Your task to perform on an android device: open app "Gmail" (install if not already installed) Image 0: 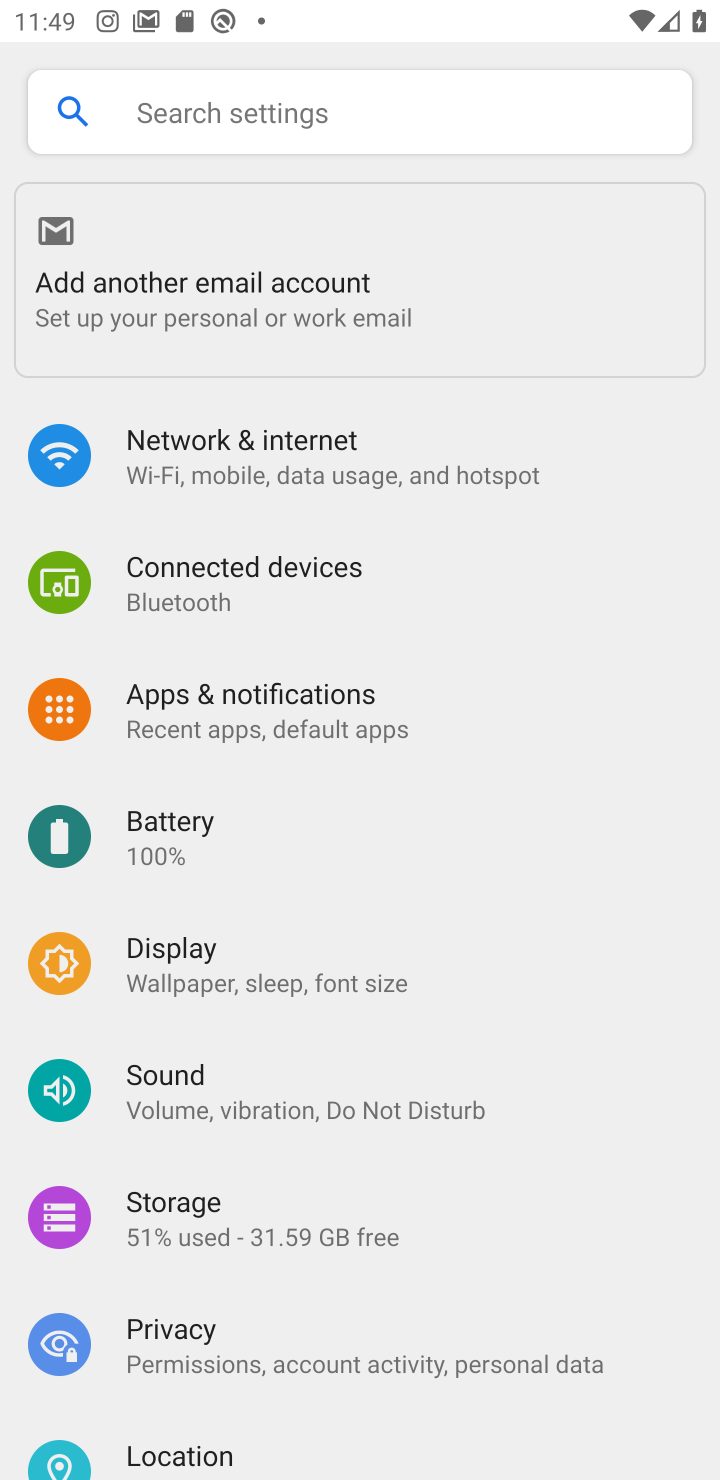
Step 0: press home button
Your task to perform on an android device: open app "Gmail" (install if not already installed) Image 1: 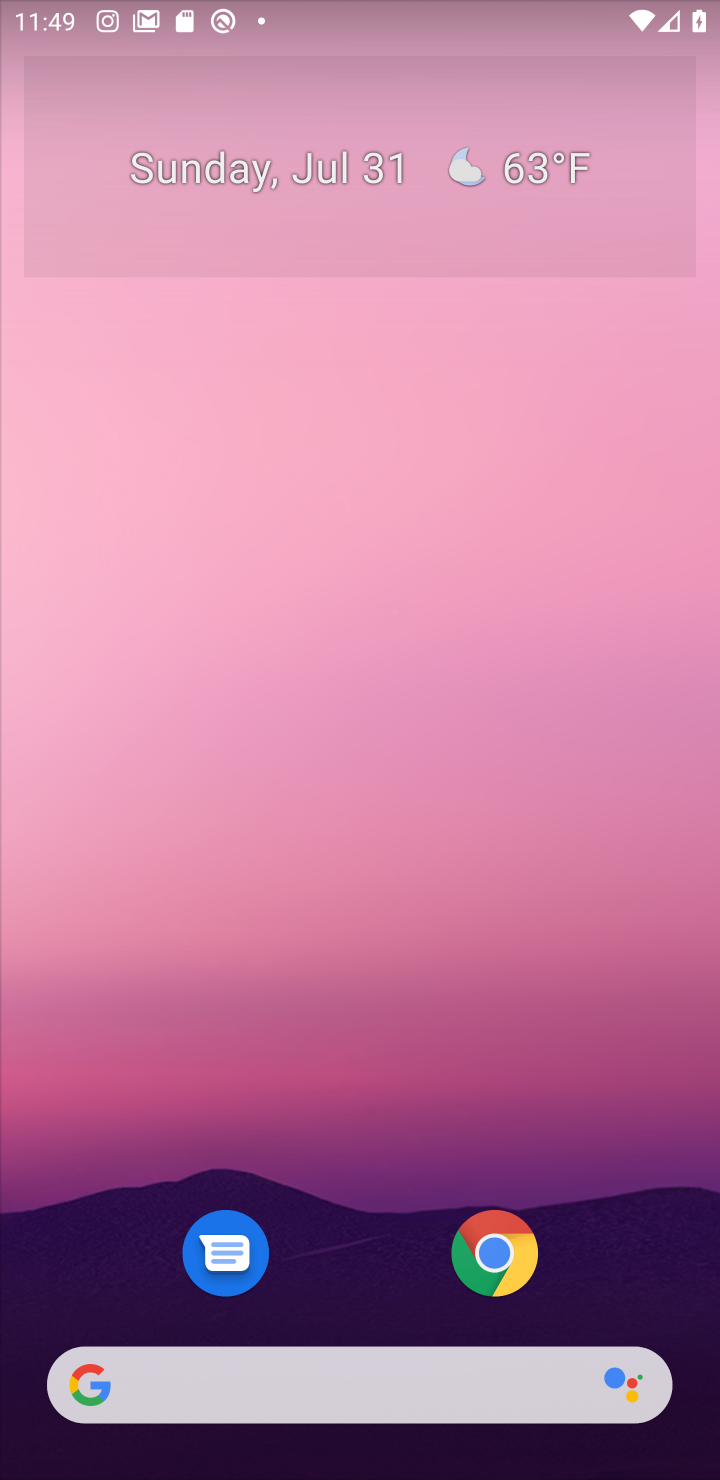
Step 1: drag from (603, 885) to (583, 102)
Your task to perform on an android device: open app "Gmail" (install if not already installed) Image 2: 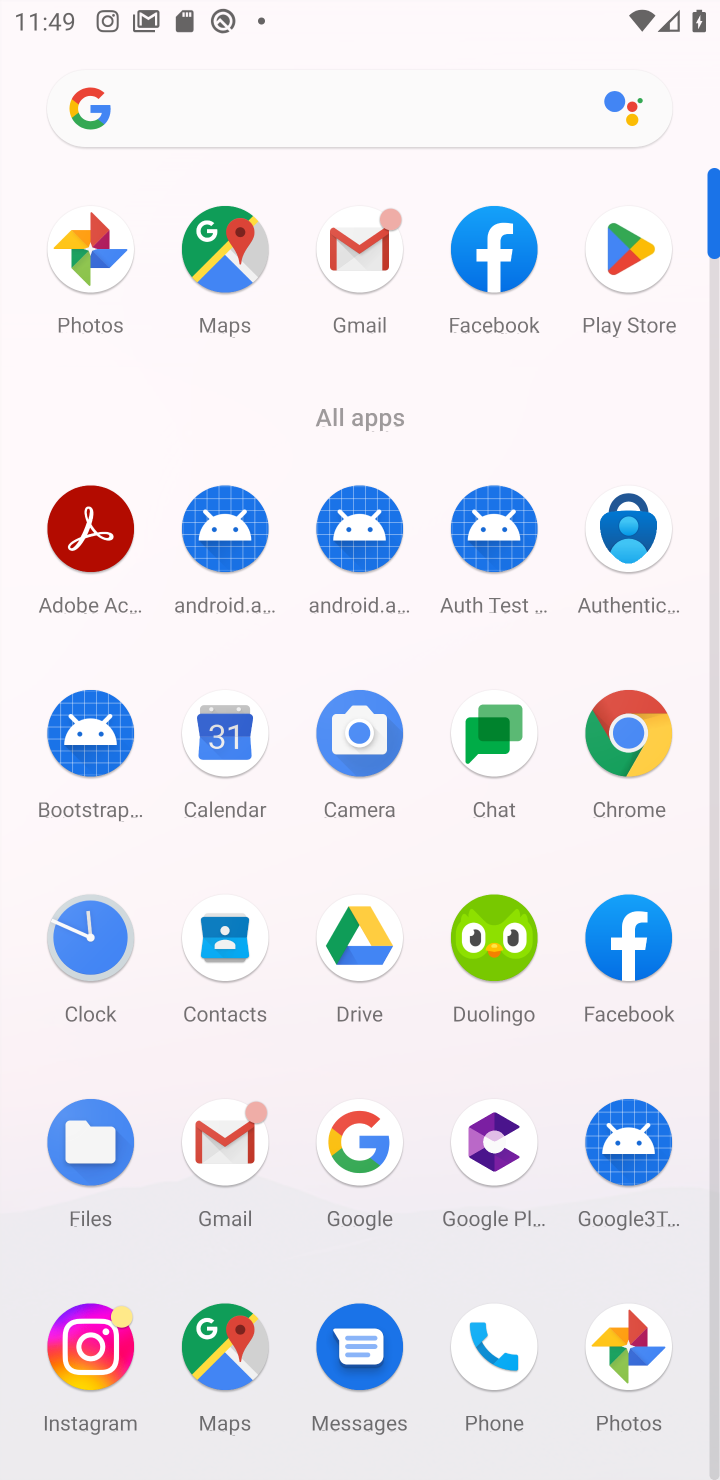
Step 2: click (632, 236)
Your task to perform on an android device: open app "Gmail" (install if not already installed) Image 3: 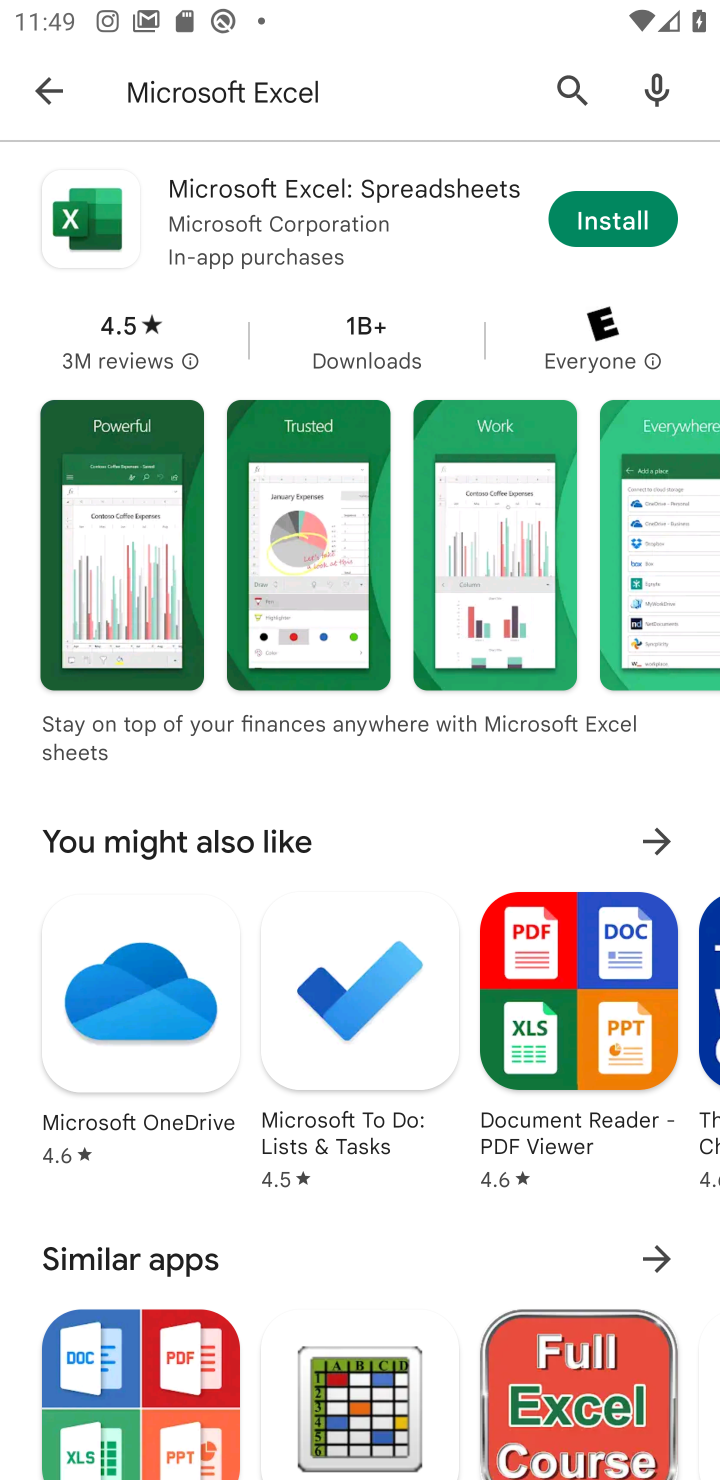
Step 3: click (301, 94)
Your task to perform on an android device: open app "Gmail" (install if not already installed) Image 4: 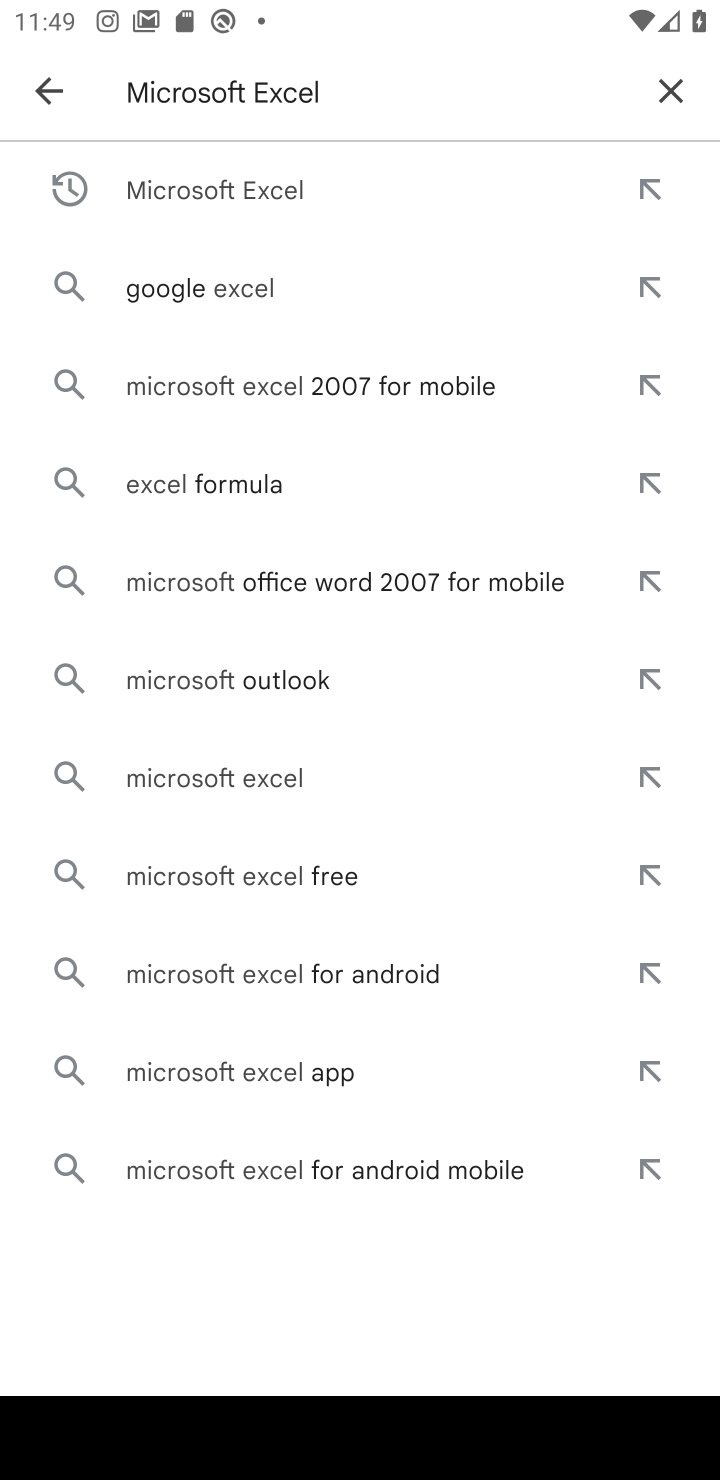
Step 4: click (680, 86)
Your task to perform on an android device: open app "Gmail" (install if not already installed) Image 5: 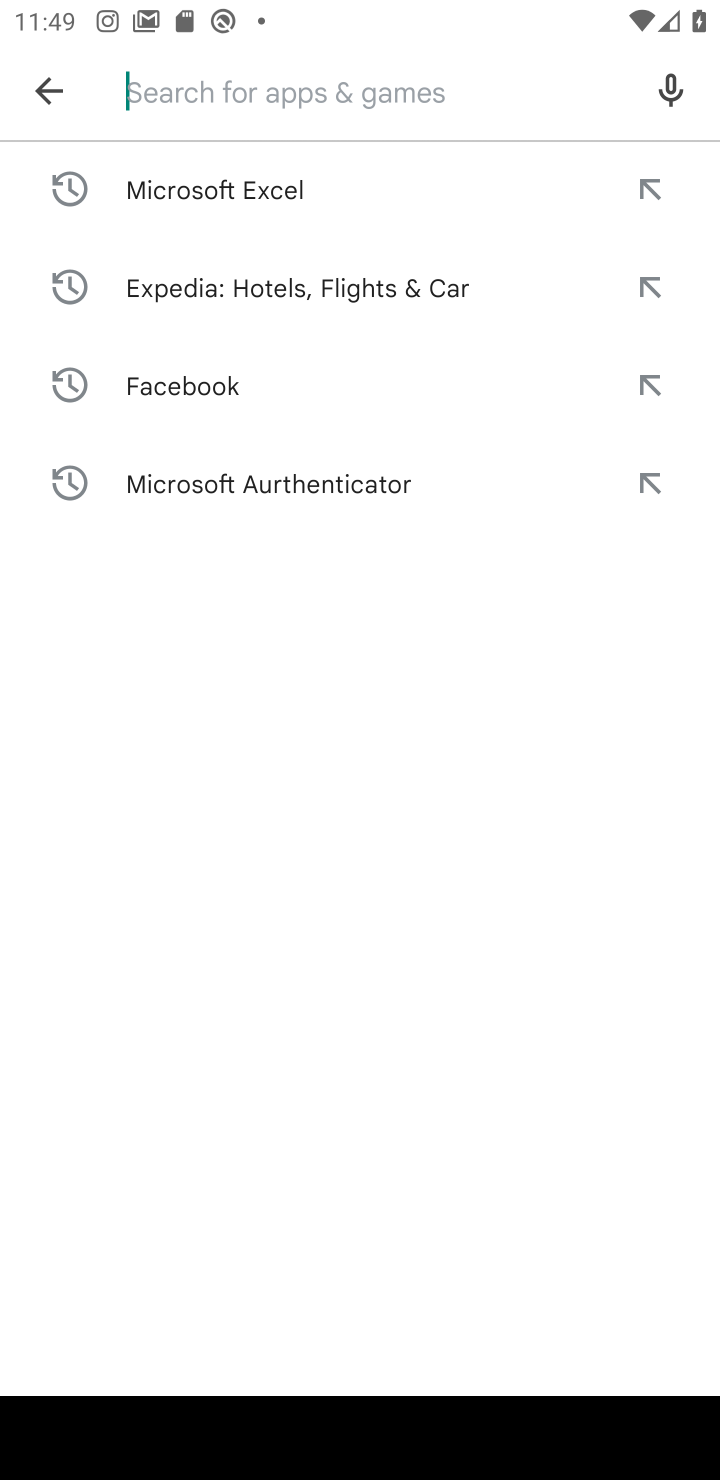
Step 5: type "Gmail"
Your task to perform on an android device: open app "Gmail" (install if not already installed) Image 6: 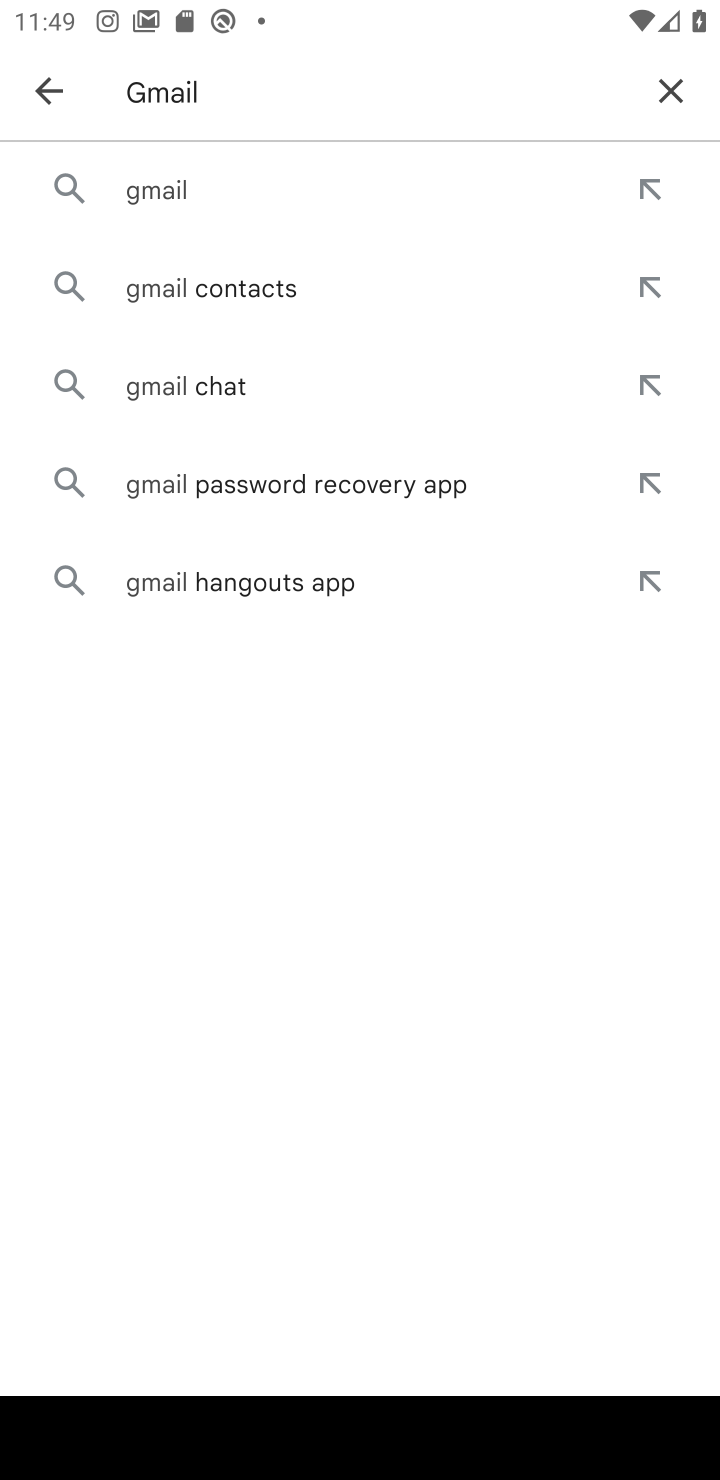
Step 6: click (231, 182)
Your task to perform on an android device: open app "Gmail" (install if not already installed) Image 7: 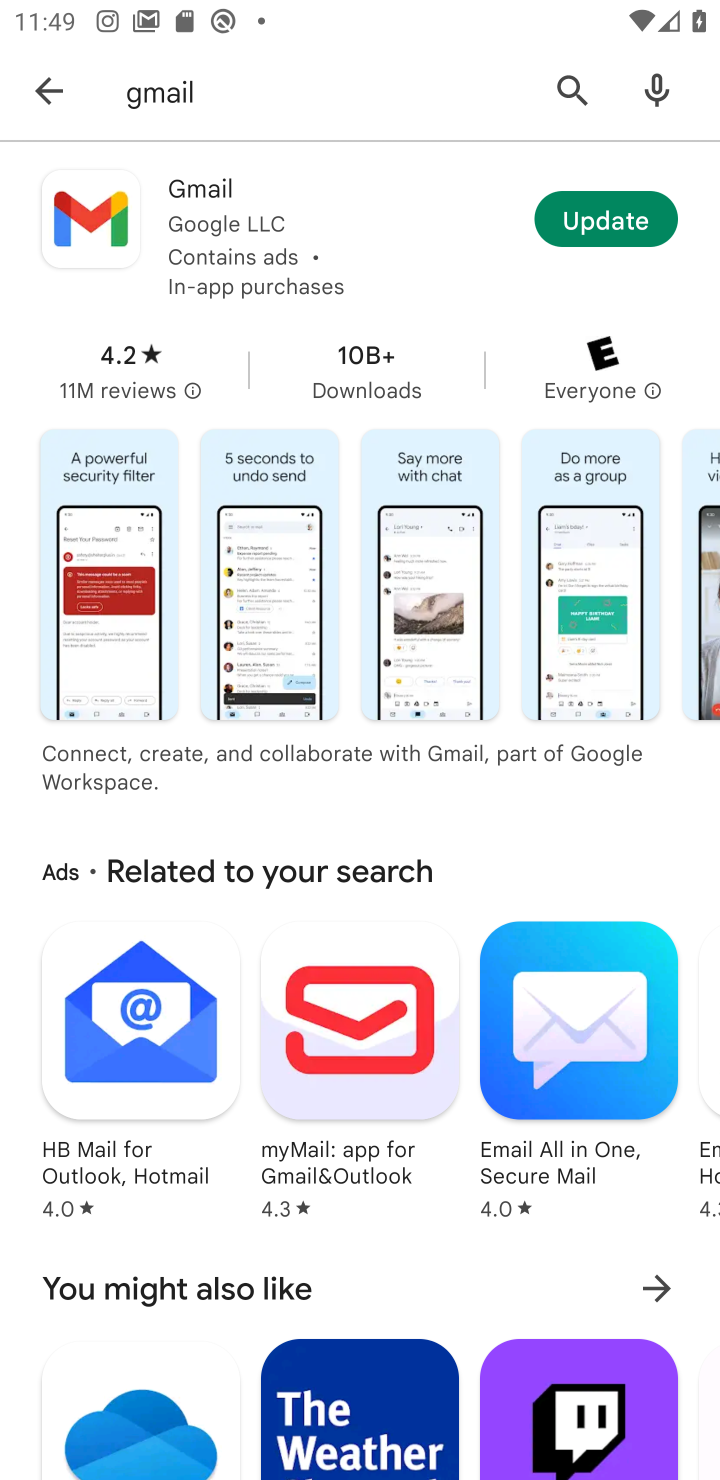
Step 7: click (295, 206)
Your task to perform on an android device: open app "Gmail" (install if not already installed) Image 8: 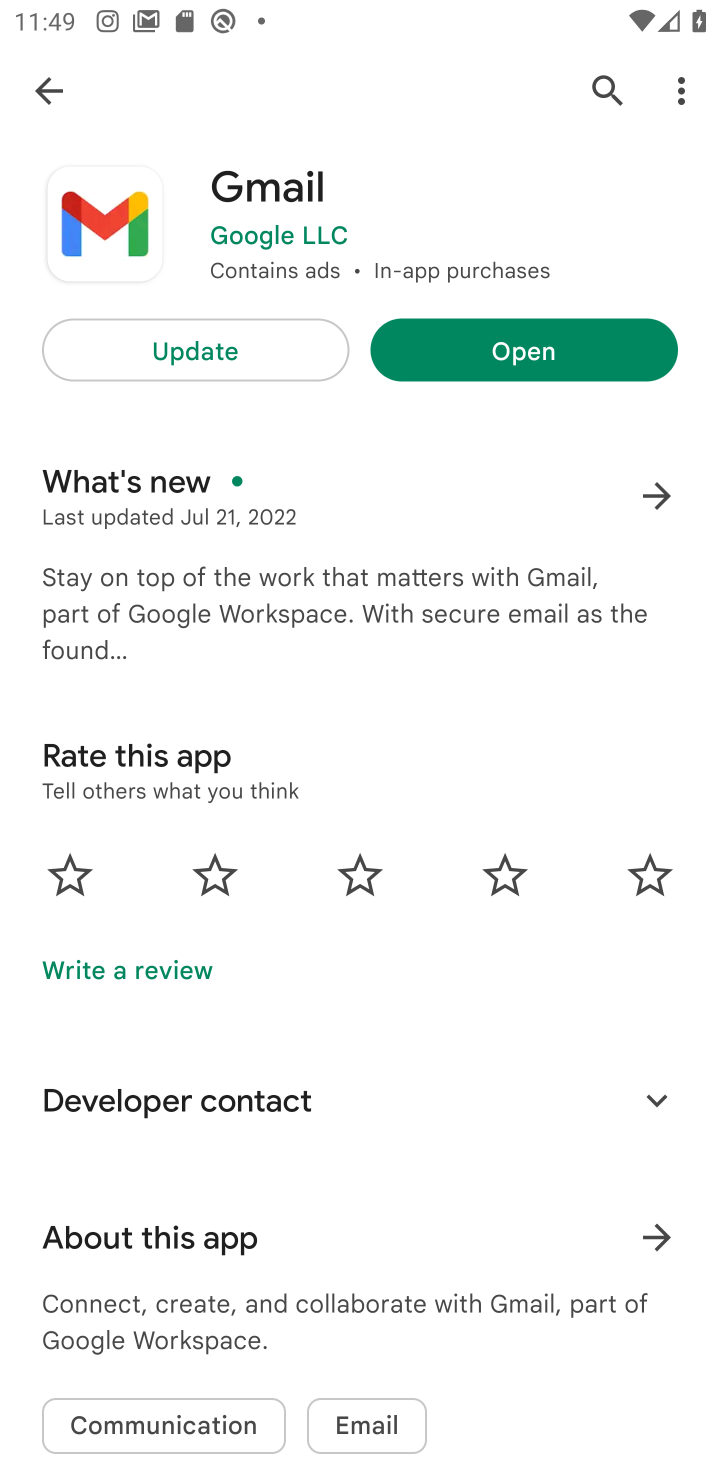
Step 8: click (532, 353)
Your task to perform on an android device: open app "Gmail" (install if not already installed) Image 9: 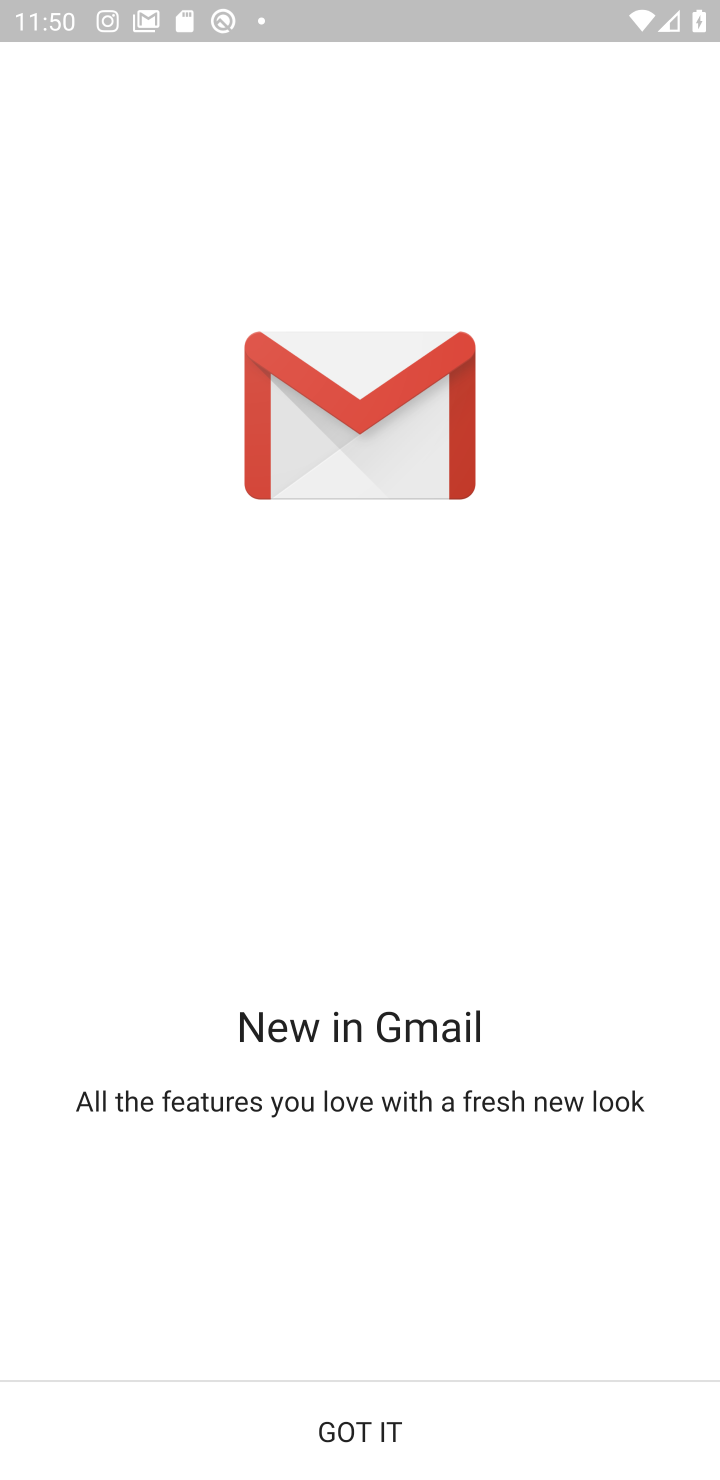
Step 9: task complete